Your task to perform on an android device: stop showing notifications on the lock screen Image 0: 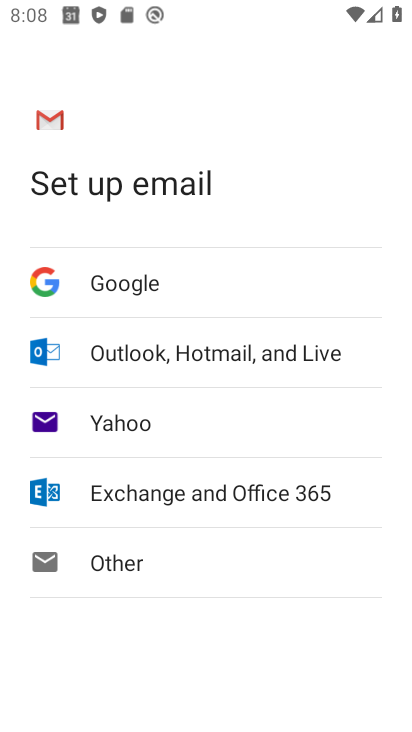
Step 0: press home button
Your task to perform on an android device: stop showing notifications on the lock screen Image 1: 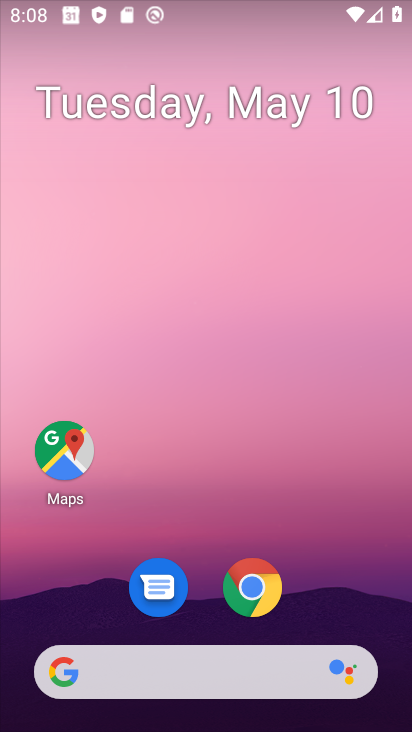
Step 1: drag from (353, 567) to (326, 25)
Your task to perform on an android device: stop showing notifications on the lock screen Image 2: 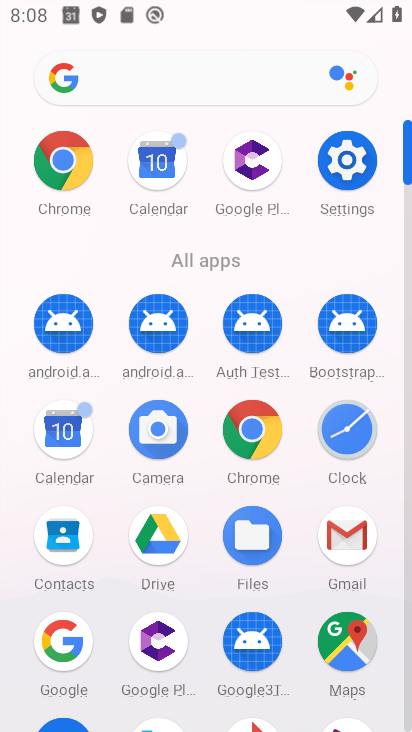
Step 2: click (354, 150)
Your task to perform on an android device: stop showing notifications on the lock screen Image 3: 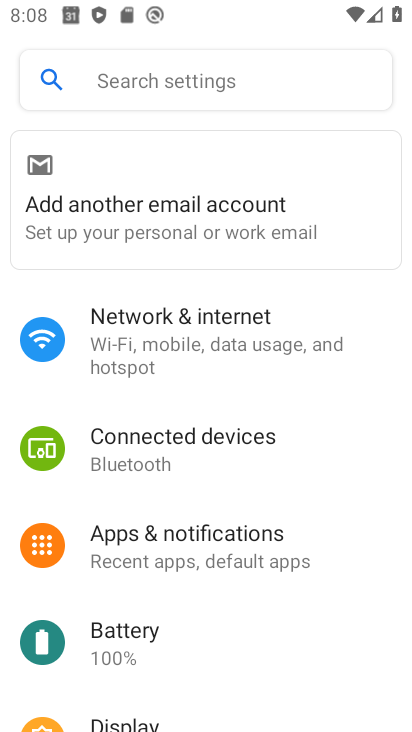
Step 3: click (195, 542)
Your task to perform on an android device: stop showing notifications on the lock screen Image 4: 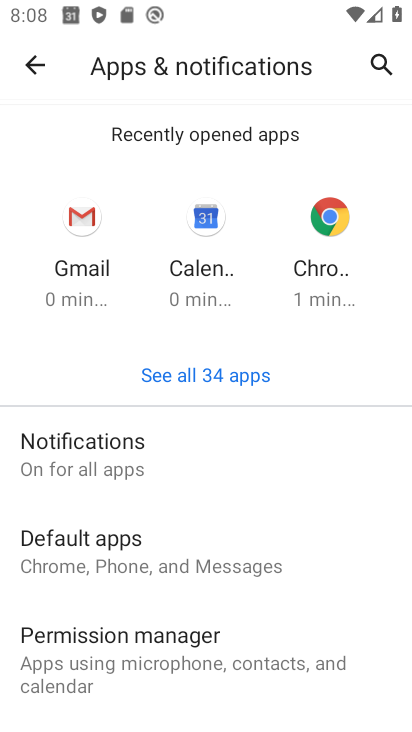
Step 4: click (51, 465)
Your task to perform on an android device: stop showing notifications on the lock screen Image 5: 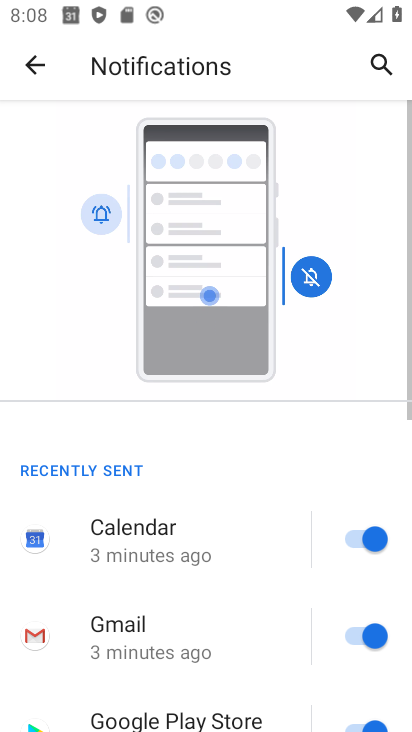
Step 5: drag from (184, 562) to (218, 122)
Your task to perform on an android device: stop showing notifications on the lock screen Image 6: 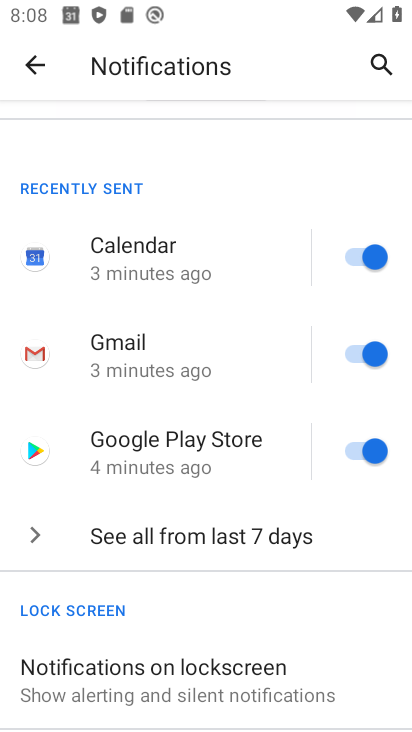
Step 6: drag from (179, 544) to (175, 201)
Your task to perform on an android device: stop showing notifications on the lock screen Image 7: 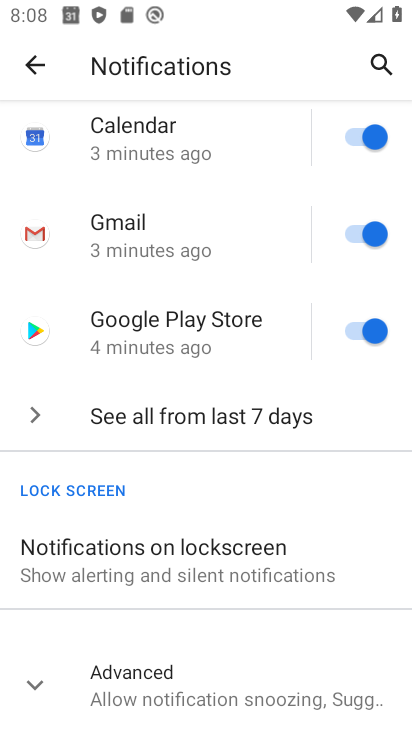
Step 7: click (159, 562)
Your task to perform on an android device: stop showing notifications on the lock screen Image 8: 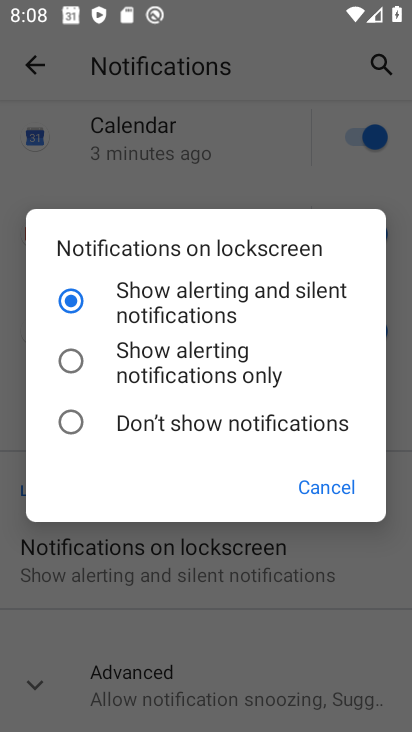
Step 8: click (109, 421)
Your task to perform on an android device: stop showing notifications on the lock screen Image 9: 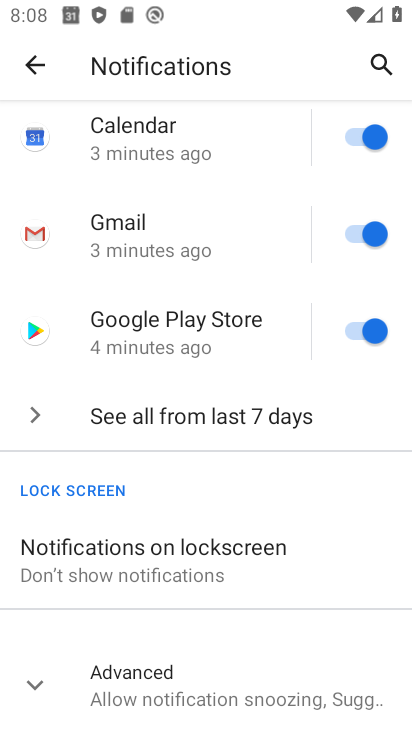
Step 9: task complete